Your task to perform on an android device: Turn off the flashlight Image 0: 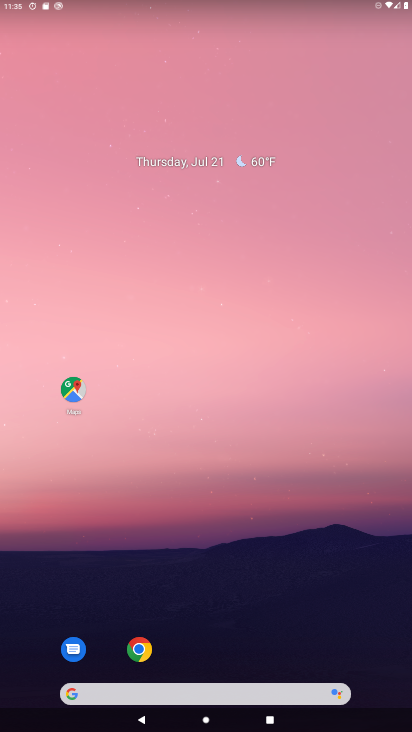
Step 0: drag from (388, 727) to (375, 55)
Your task to perform on an android device: Turn off the flashlight Image 1: 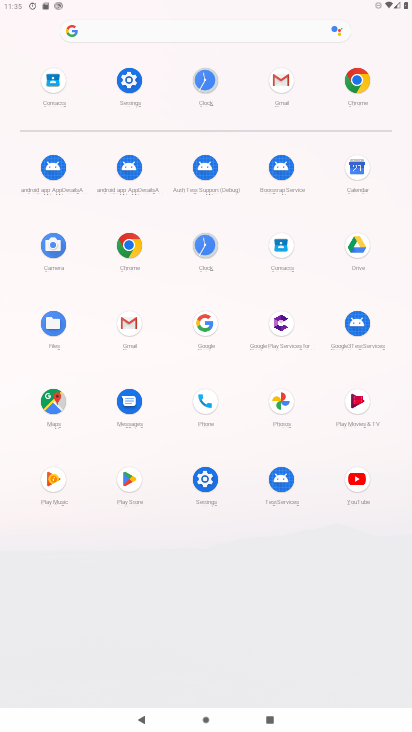
Step 1: click (205, 486)
Your task to perform on an android device: Turn off the flashlight Image 2: 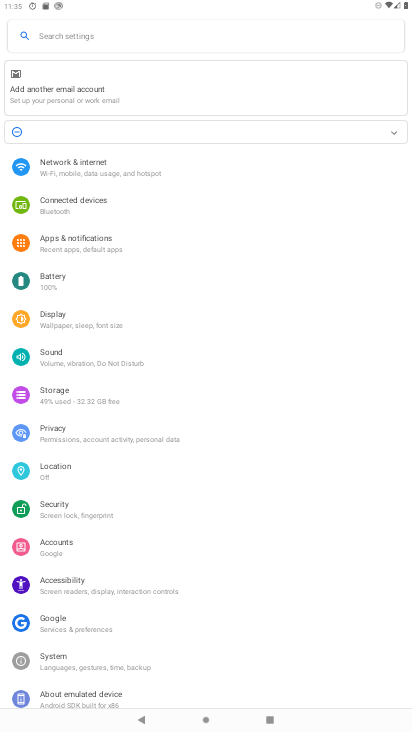
Step 2: click (60, 320)
Your task to perform on an android device: Turn off the flashlight Image 3: 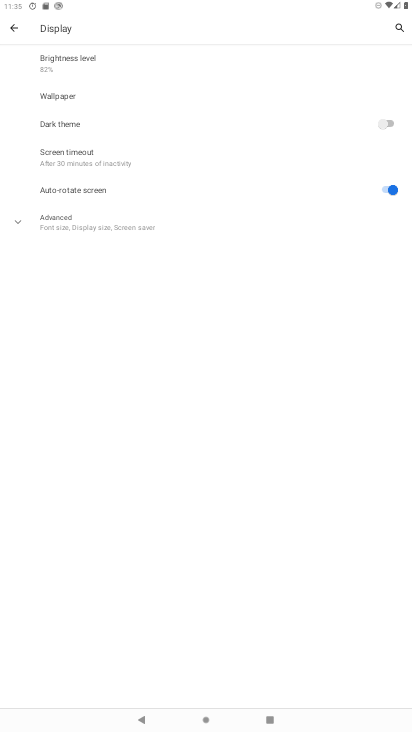
Step 3: click (24, 225)
Your task to perform on an android device: Turn off the flashlight Image 4: 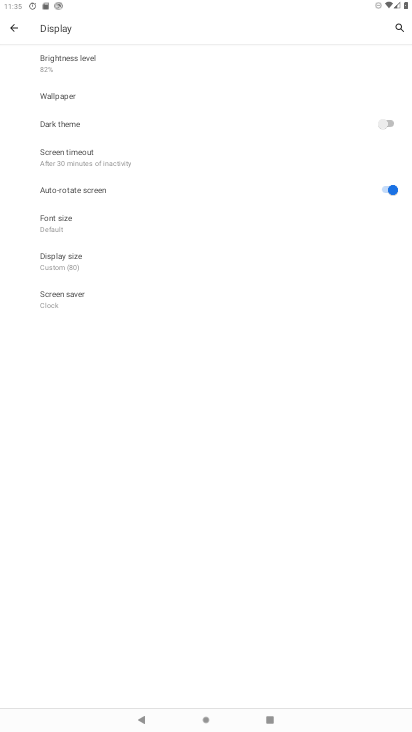
Step 4: task complete